Your task to perform on an android device: turn on location history Image 0: 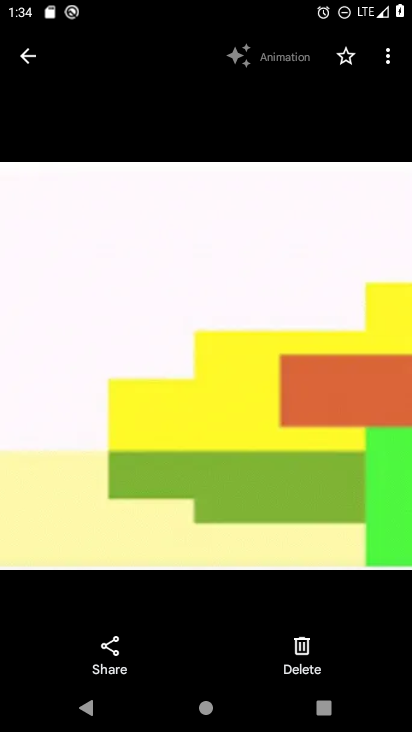
Step 0: press home button
Your task to perform on an android device: turn on location history Image 1: 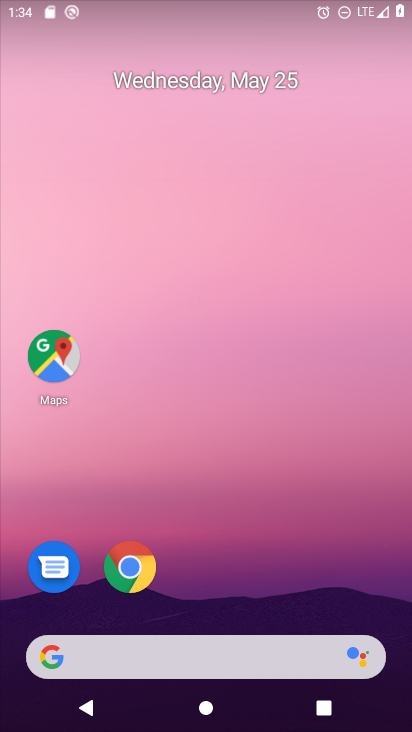
Step 1: drag from (386, 722) to (300, 236)
Your task to perform on an android device: turn on location history Image 2: 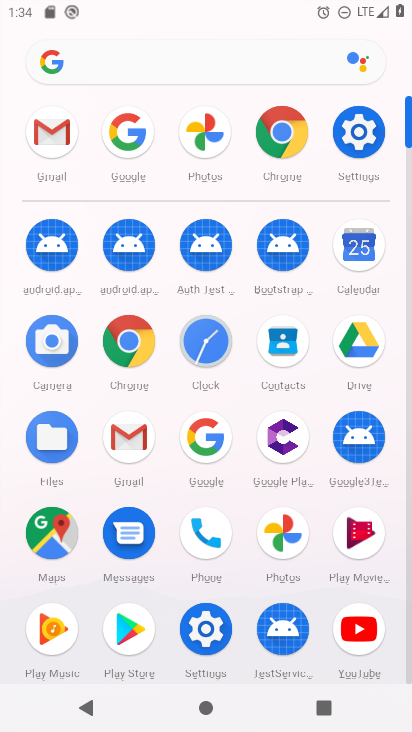
Step 2: click (352, 127)
Your task to perform on an android device: turn on location history Image 3: 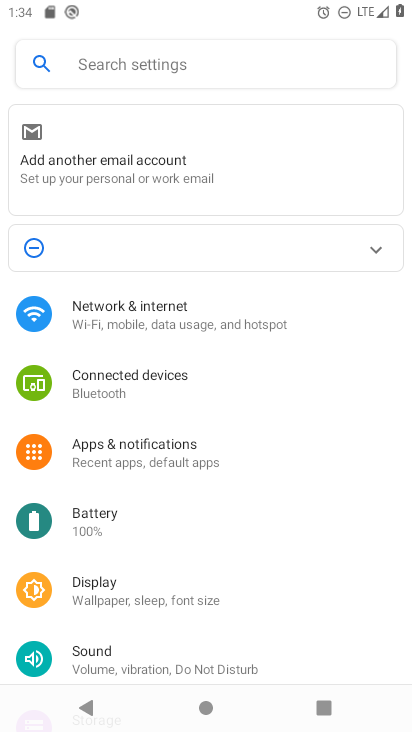
Step 3: drag from (241, 634) to (252, 192)
Your task to perform on an android device: turn on location history Image 4: 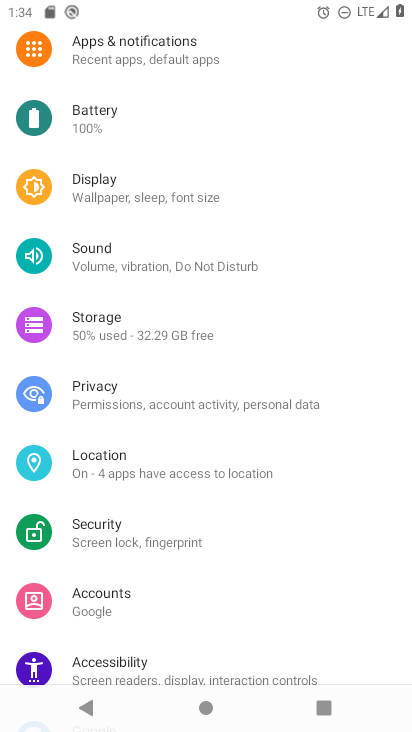
Step 4: click (94, 455)
Your task to perform on an android device: turn on location history Image 5: 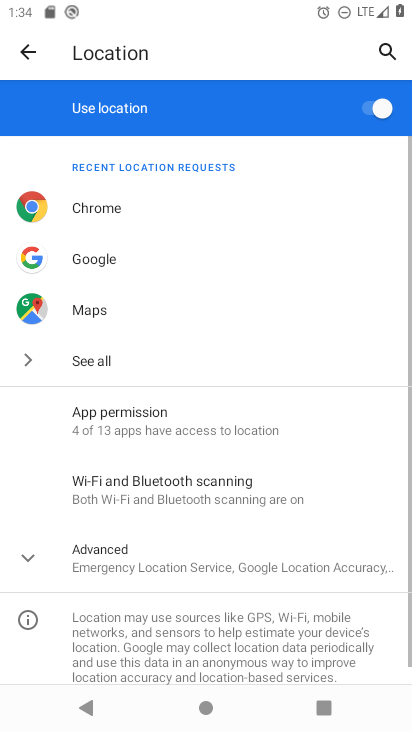
Step 5: click (26, 562)
Your task to perform on an android device: turn on location history Image 6: 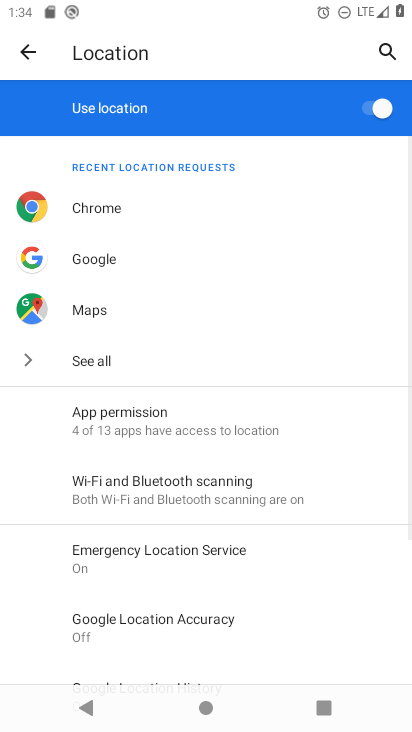
Step 6: drag from (251, 624) to (256, 329)
Your task to perform on an android device: turn on location history Image 7: 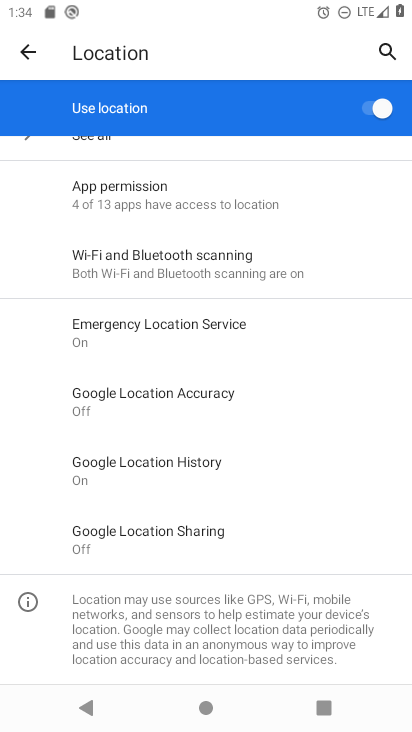
Step 7: click (138, 473)
Your task to perform on an android device: turn on location history Image 8: 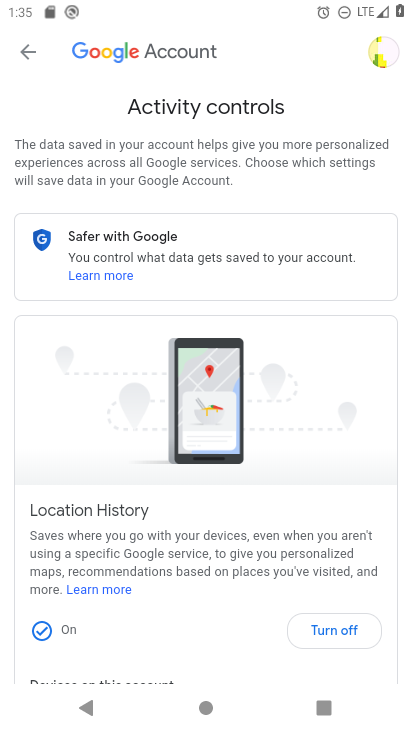
Step 8: task complete